Your task to perform on an android device: Empty the shopping cart on ebay. Search for razer thresher on ebay, select the first entry, and add it to the cart. Image 0: 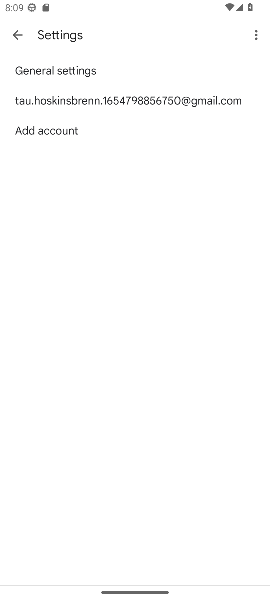
Step 0: press home button
Your task to perform on an android device: Empty the shopping cart on ebay. Search for razer thresher on ebay, select the first entry, and add it to the cart. Image 1: 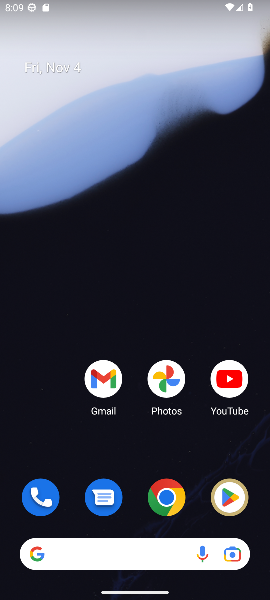
Step 1: click (167, 501)
Your task to perform on an android device: Empty the shopping cart on ebay. Search for razer thresher on ebay, select the first entry, and add it to the cart. Image 2: 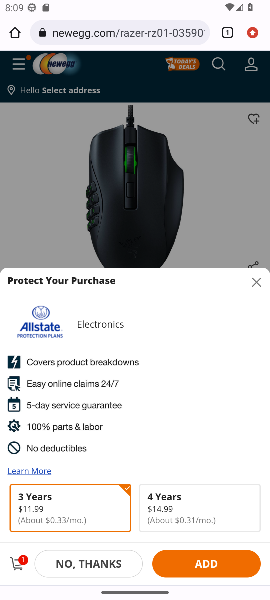
Step 2: click (105, 38)
Your task to perform on an android device: Empty the shopping cart on ebay. Search for razer thresher on ebay, select the first entry, and add it to the cart. Image 3: 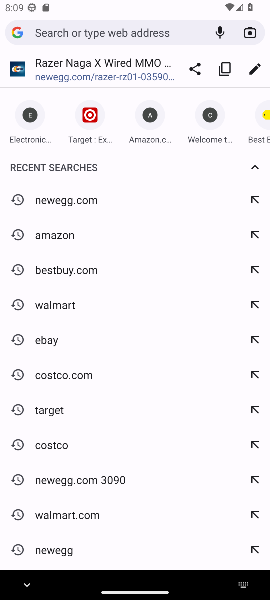
Step 3: click (49, 349)
Your task to perform on an android device: Empty the shopping cart on ebay. Search for razer thresher on ebay, select the first entry, and add it to the cart. Image 4: 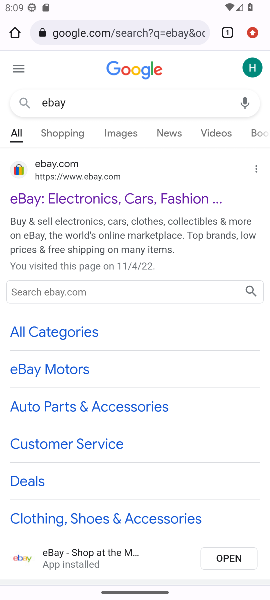
Step 4: click (79, 197)
Your task to perform on an android device: Empty the shopping cart on ebay. Search for razer thresher on ebay, select the first entry, and add it to the cart. Image 5: 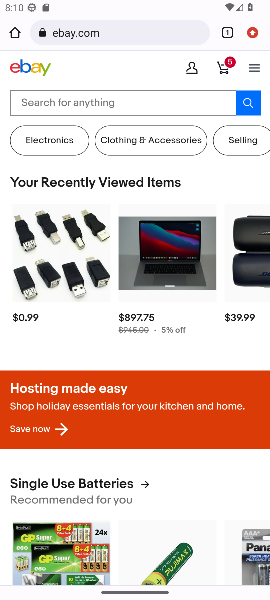
Step 5: click (226, 66)
Your task to perform on an android device: Empty the shopping cart on ebay. Search for razer thresher on ebay, select the first entry, and add it to the cart. Image 6: 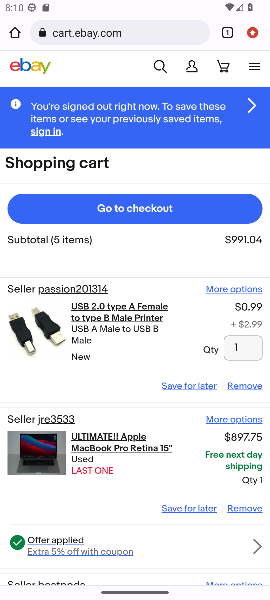
Step 6: click (242, 390)
Your task to perform on an android device: Empty the shopping cart on ebay. Search for razer thresher on ebay, select the first entry, and add it to the cart. Image 7: 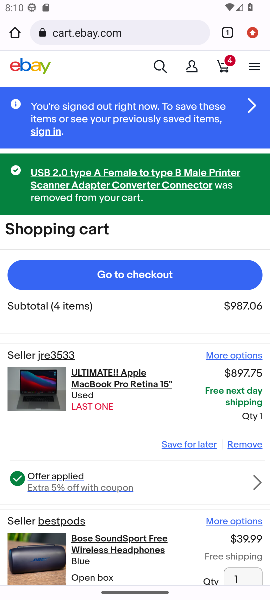
Step 7: click (240, 443)
Your task to perform on an android device: Empty the shopping cart on ebay. Search for razer thresher on ebay, select the first entry, and add it to the cart. Image 8: 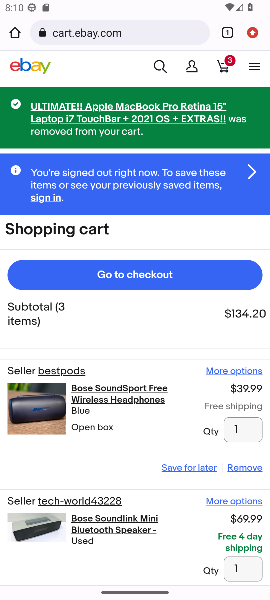
Step 8: click (240, 468)
Your task to perform on an android device: Empty the shopping cart on ebay. Search for razer thresher on ebay, select the first entry, and add it to the cart. Image 9: 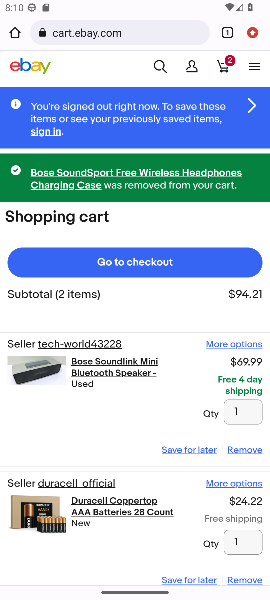
Step 9: click (244, 449)
Your task to perform on an android device: Empty the shopping cart on ebay. Search for razer thresher on ebay, select the first entry, and add it to the cart. Image 10: 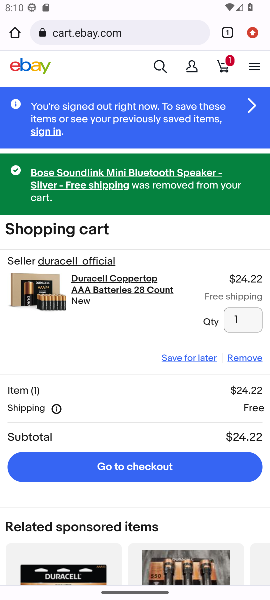
Step 10: click (245, 361)
Your task to perform on an android device: Empty the shopping cart on ebay. Search for razer thresher on ebay, select the first entry, and add it to the cart. Image 11: 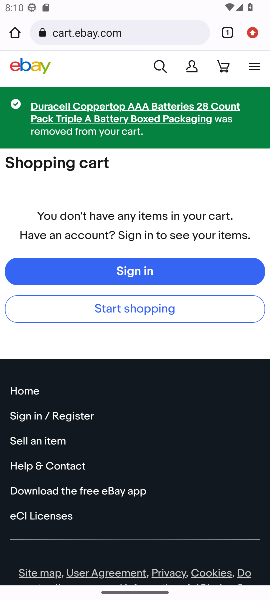
Step 11: click (161, 69)
Your task to perform on an android device: Empty the shopping cart on ebay. Search for razer thresher on ebay, select the first entry, and add it to the cart. Image 12: 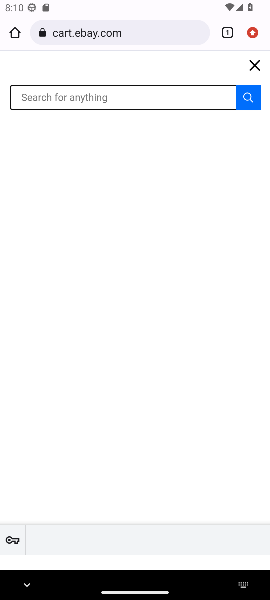
Step 12: type "razer thresher"
Your task to perform on an android device: Empty the shopping cart on ebay. Search for razer thresher on ebay, select the first entry, and add it to the cart. Image 13: 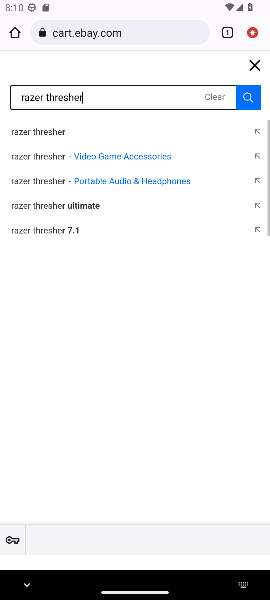
Step 13: click (43, 138)
Your task to perform on an android device: Empty the shopping cart on ebay. Search for razer thresher on ebay, select the first entry, and add it to the cart. Image 14: 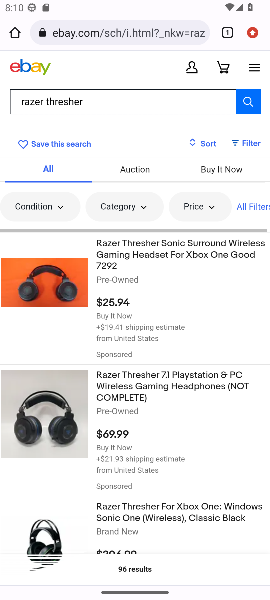
Step 14: click (84, 282)
Your task to perform on an android device: Empty the shopping cart on ebay. Search for razer thresher on ebay, select the first entry, and add it to the cart. Image 15: 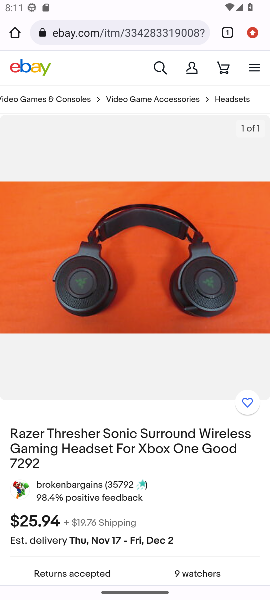
Step 15: drag from (82, 384) to (93, 186)
Your task to perform on an android device: Empty the shopping cart on ebay. Search for razer thresher on ebay, select the first entry, and add it to the cart. Image 16: 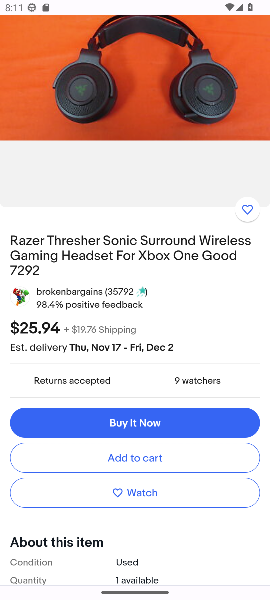
Step 16: click (100, 452)
Your task to perform on an android device: Empty the shopping cart on ebay. Search for razer thresher on ebay, select the first entry, and add it to the cart. Image 17: 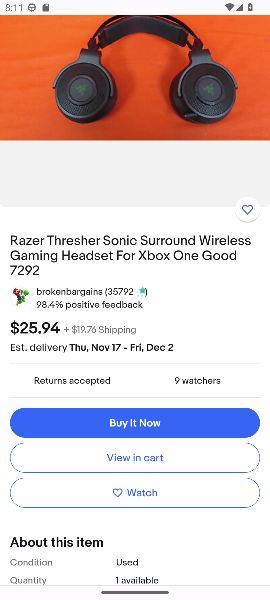
Step 17: task complete